Your task to perform on an android device: Open privacy settings Image 0: 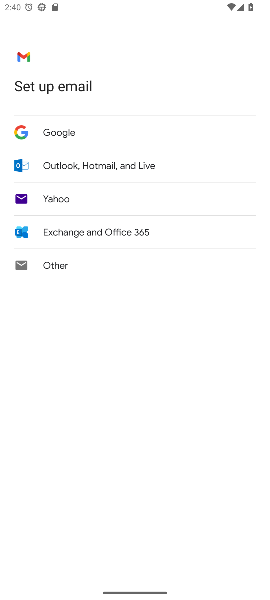
Step 0: press home button
Your task to perform on an android device: Open privacy settings Image 1: 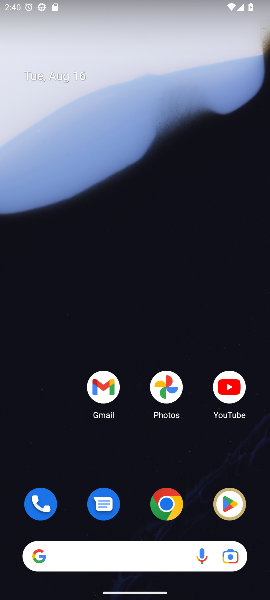
Step 1: drag from (136, 518) to (150, 42)
Your task to perform on an android device: Open privacy settings Image 2: 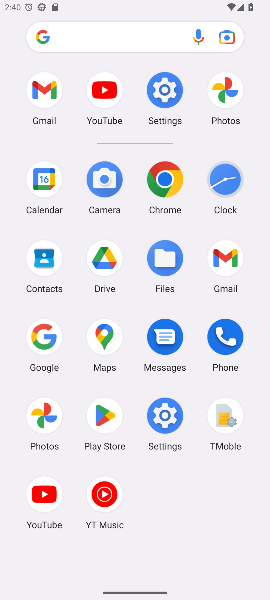
Step 2: click (162, 89)
Your task to perform on an android device: Open privacy settings Image 3: 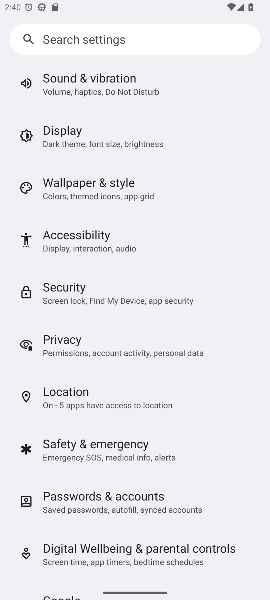
Step 3: click (62, 341)
Your task to perform on an android device: Open privacy settings Image 4: 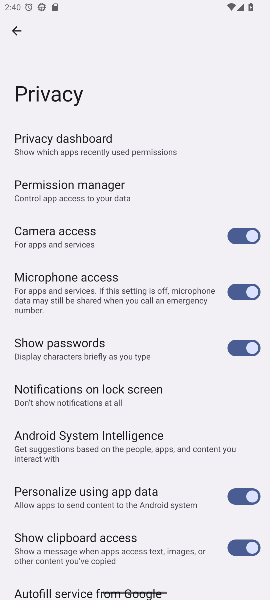
Step 4: task complete